Your task to perform on an android device: find snoozed emails in the gmail app Image 0: 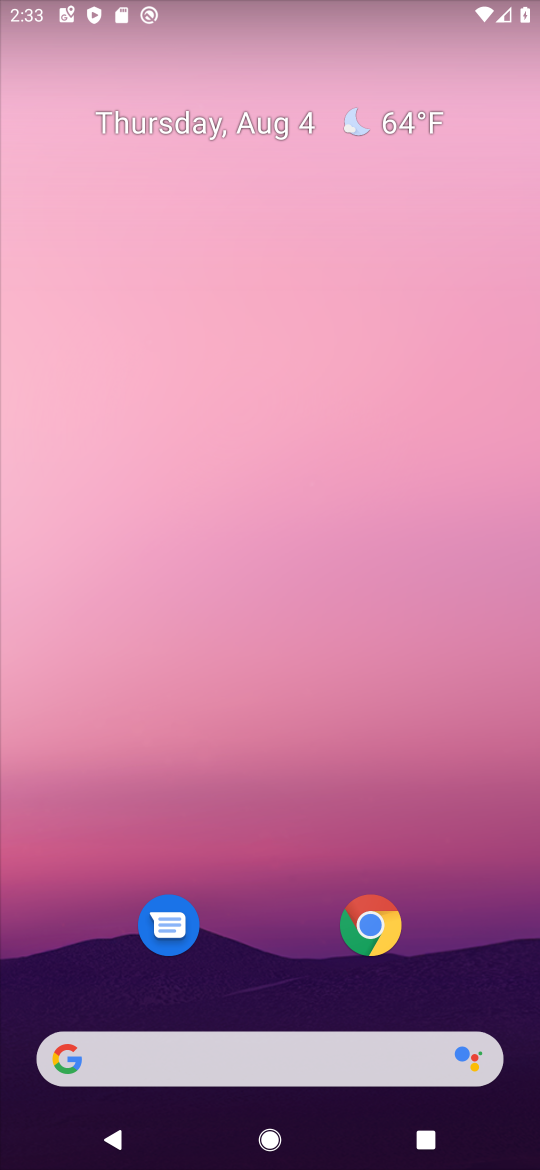
Step 0: drag from (220, 481) to (186, 49)
Your task to perform on an android device: find snoozed emails in the gmail app Image 1: 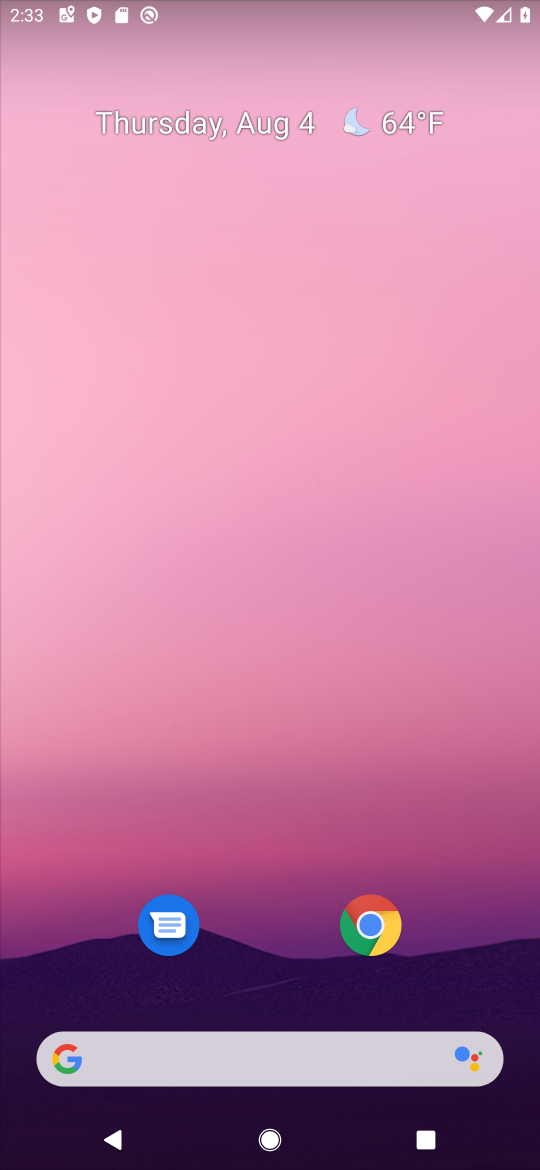
Step 1: drag from (275, 930) to (167, 45)
Your task to perform on an android device: find snoozed emails in the gmail app Image 2: 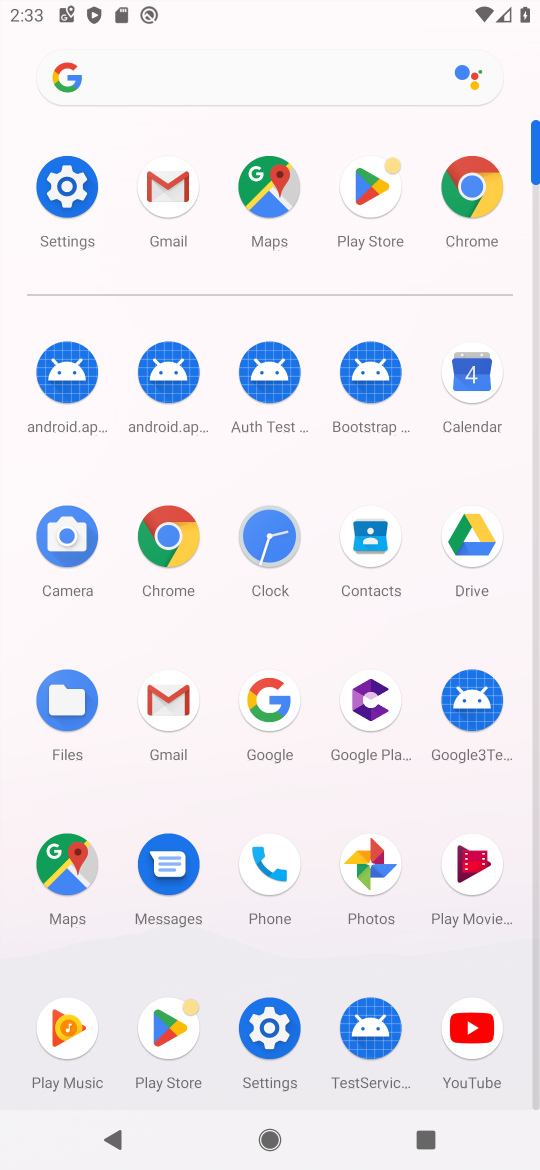
Step 2: click (183, 707)
Your task to perform on an android device: find snoozed emails in the gmail app Image 3: 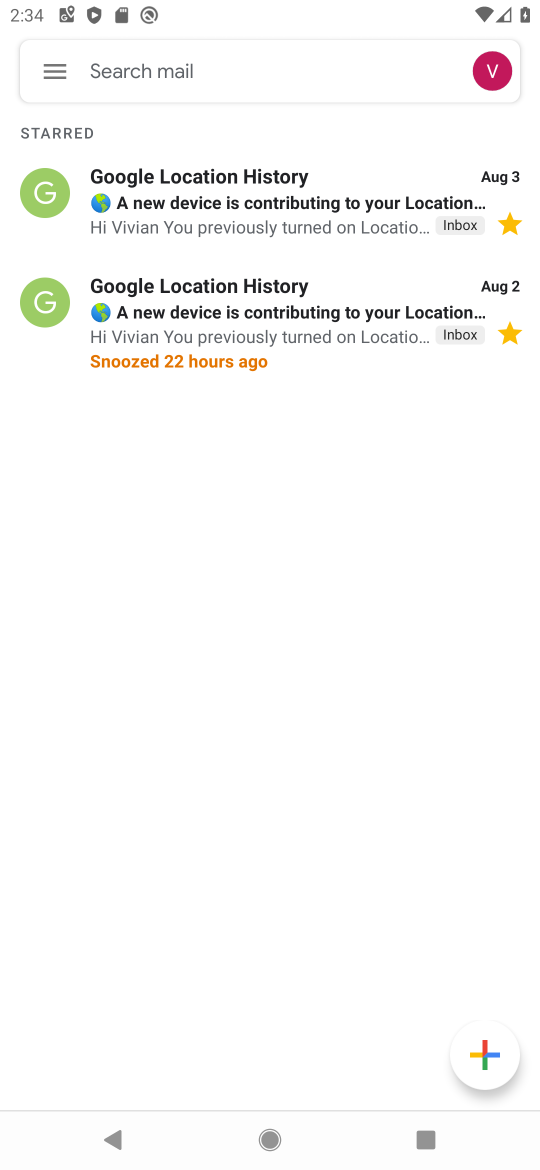
Step 3: click (51, 62)
Your task to perform on an android device: find snoozed emails in the gmail app Image 4: 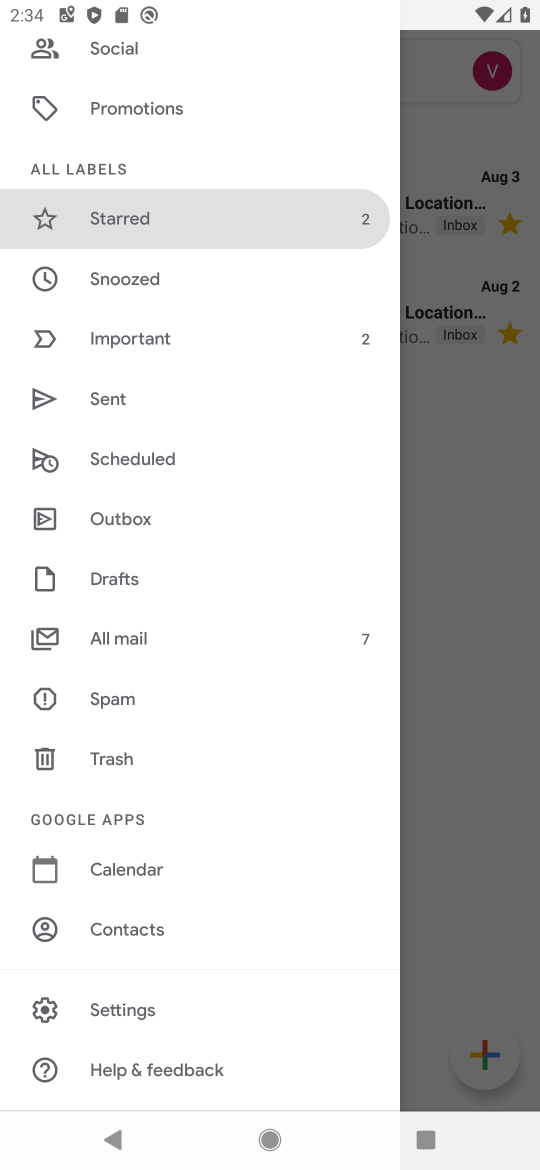
Step 4: click (102, 291)
Your task to perform on an android device: find snoozed emails in the gmail app Image 5: 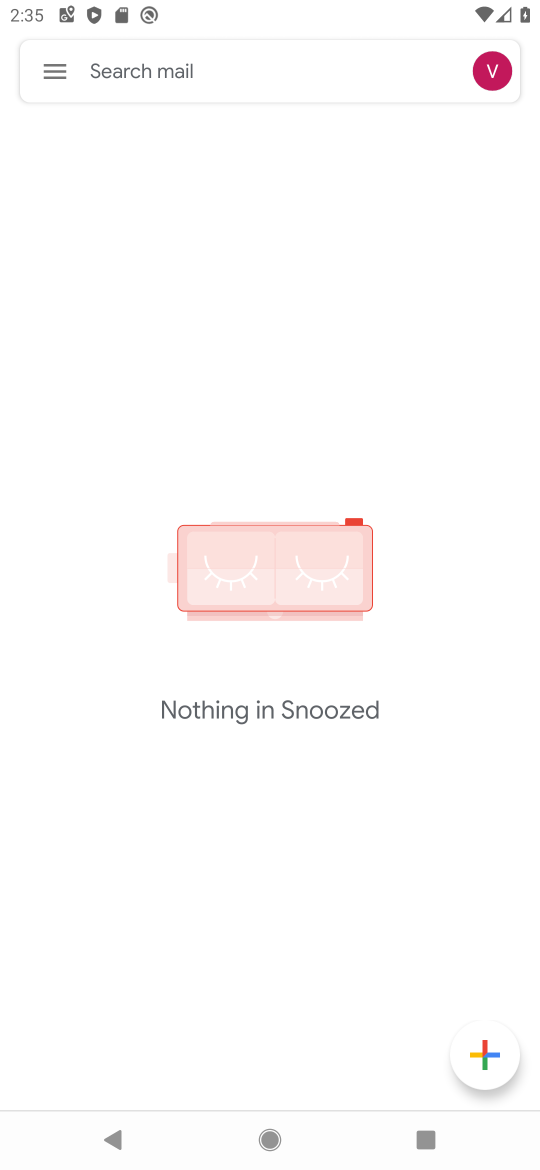
Step 5: task complete